Your task to perform on an android device: show emergency info Image 0: 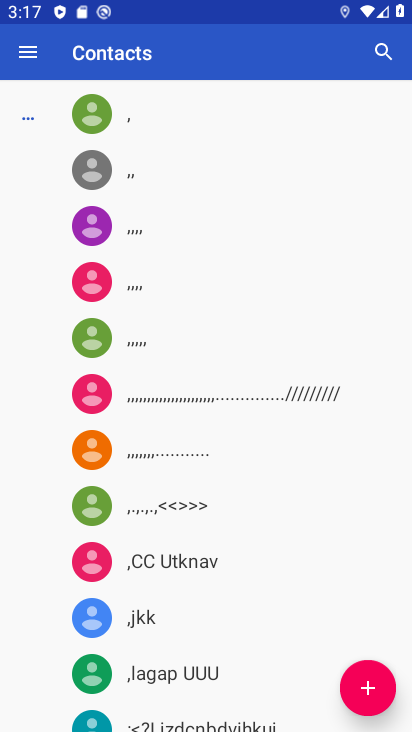
Step 0: press home button
Your task to perform on an android device: show emergency info Image 1: 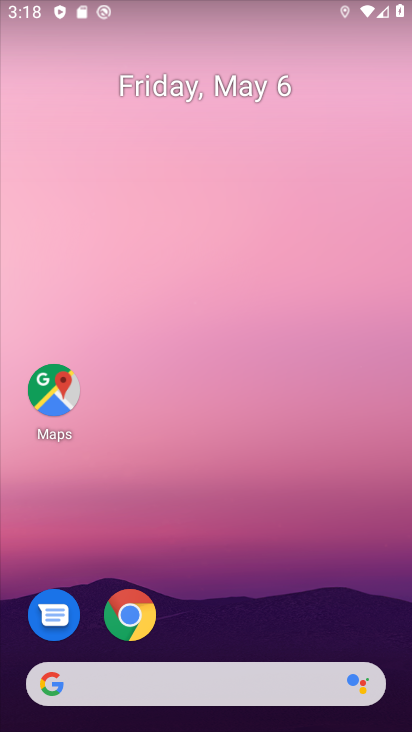
Step 1: drag from (277, 605) to (289, 198)
Your task to perform on an android device: show emergency info Image 2: 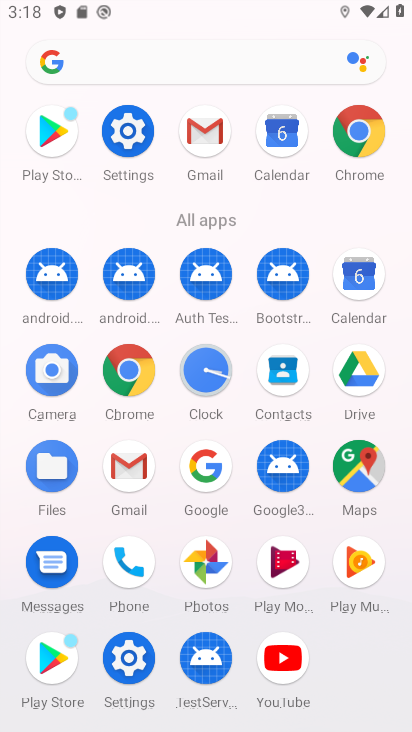
Step 2: click (116, 130)
Your task to perform on an android device: show emergency info Image 3: 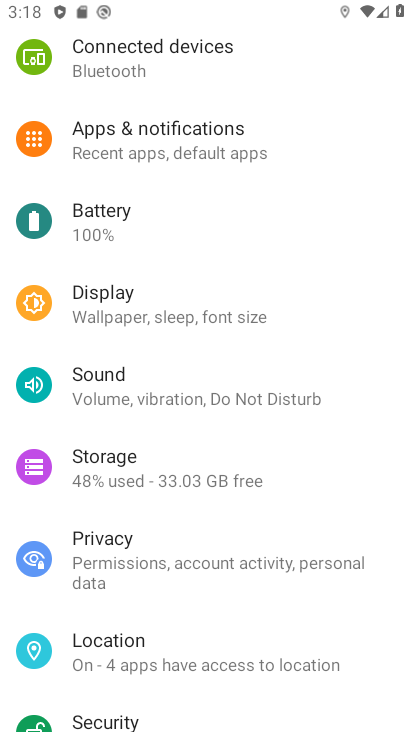
Step 3: drag from (365, 686) to (377, 357)
Your task to perform on an android device: show emergency info Image 4: 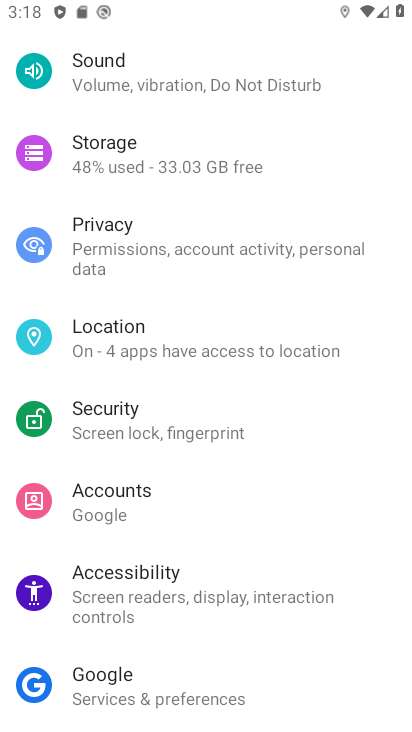
Step 4: drag from (370, 694) to (357, 343)
Your task to perform on an android device: show emergency info Image 5: 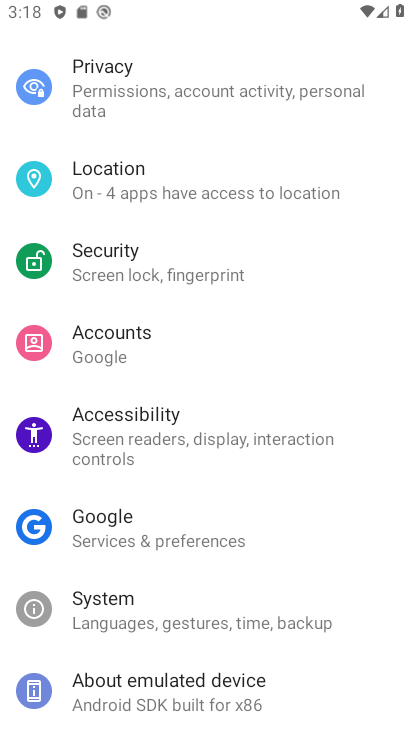
Step 5: click (191, 695)
Your task to perform on an android device: show emergency info Image 6: 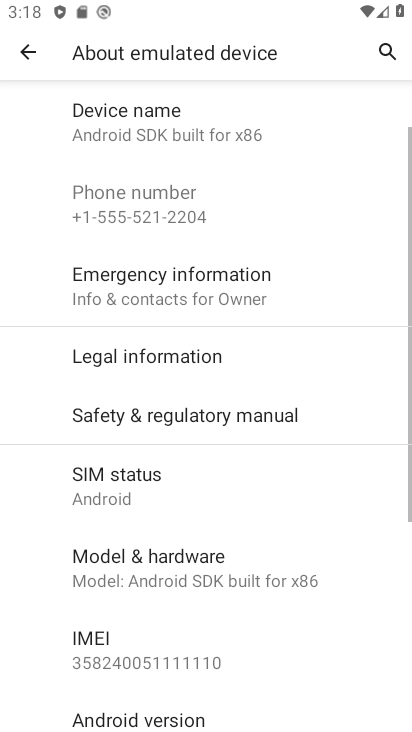
Step 6: click (206, 296)
Your task to perform on an android device: show emergency info Image 7: 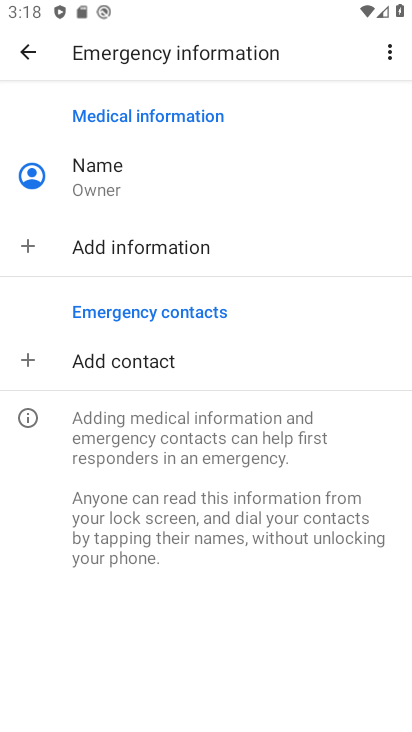
Step 7: task complete